Your task to perform on an android device: open app "Walmart Shopping & Grocery" (install if not already installed) and go to login screen Image 0: 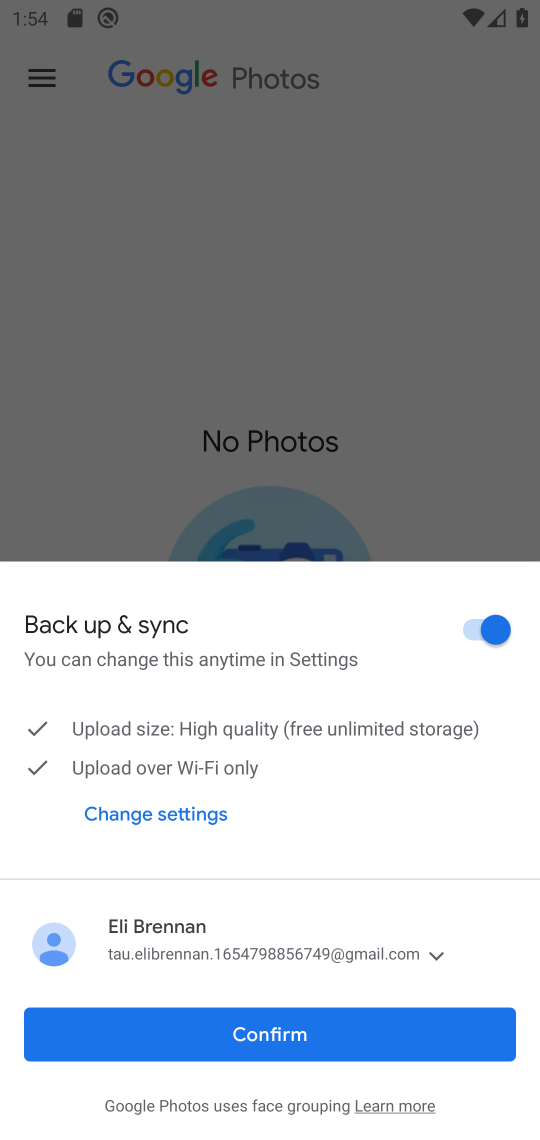
Step 0: press home button
Your task to perform on an android device: open app "Walmart Shopping & Grocery" (install if not already installed) and go to login screen Image 1: 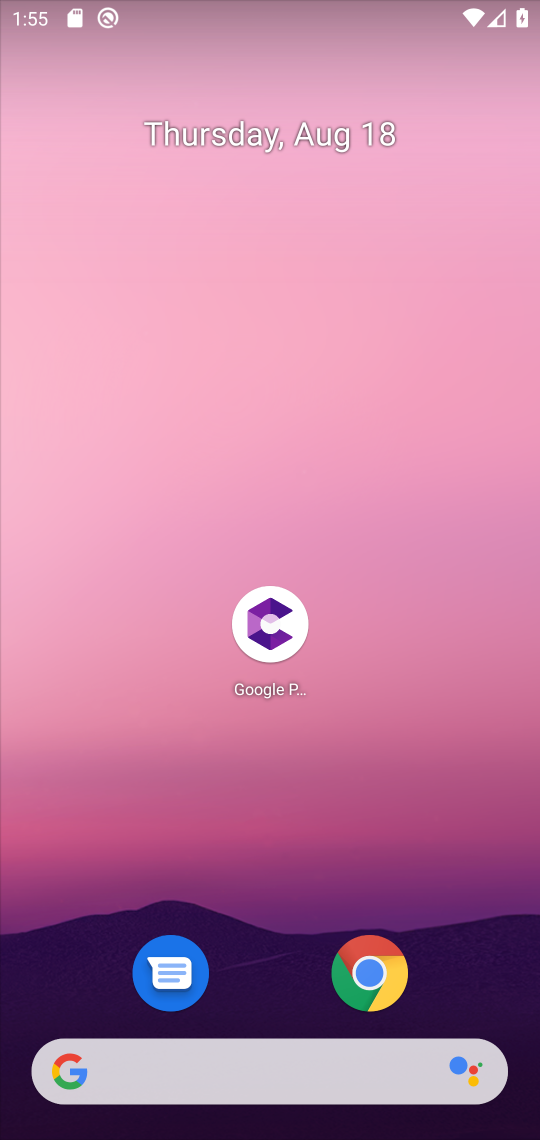
Step 1: task complete